Your task to perform on an android device: Open Chrome and go to settings Image 0: 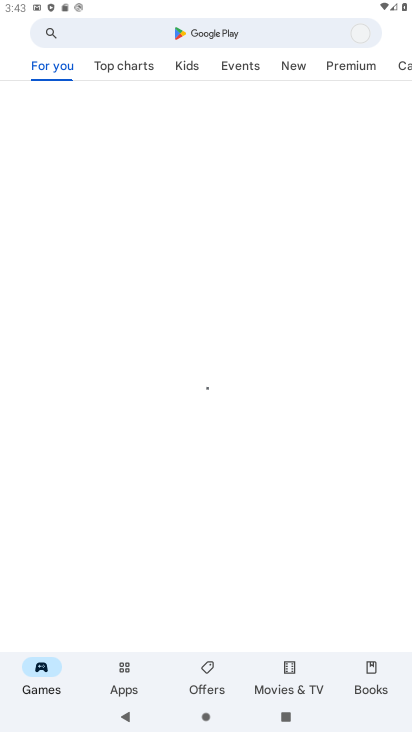
Step 0: press home button
Your task to perform on an android device: Open Chrome and go to settings Image 1: 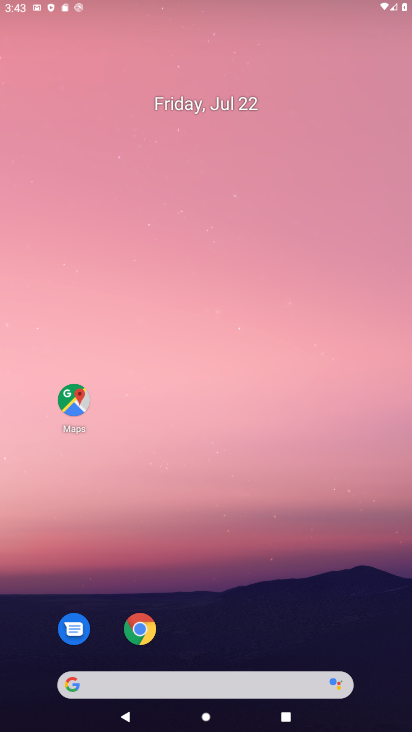
Step 1: drag from (347, 614) to (268, 121)
Your task to perform on an android device: Open Chrome and go to settings Image 2: 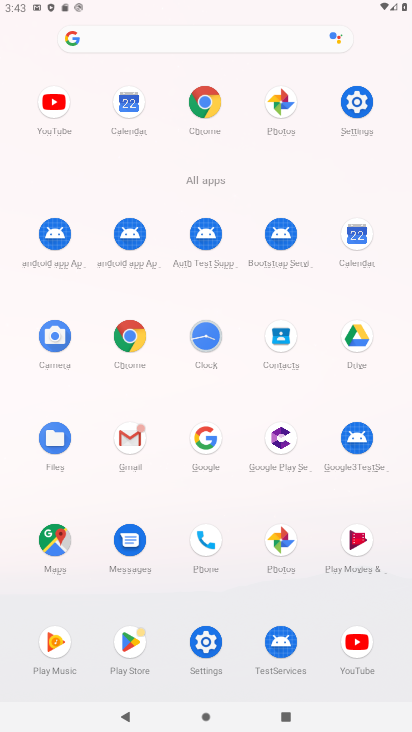
Step 2: click (210, 96)
Your task to perform on an android device: Open Chrome and go to settings Image 3: 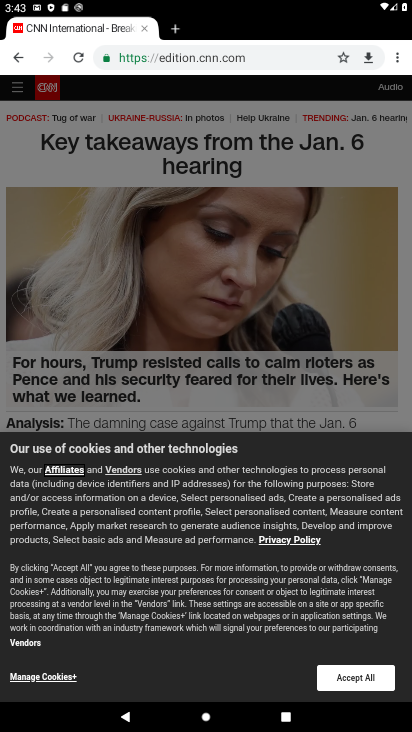
Step 3: task complete